Your task to perform on an android device: empty trash in the gmail app Image 0: 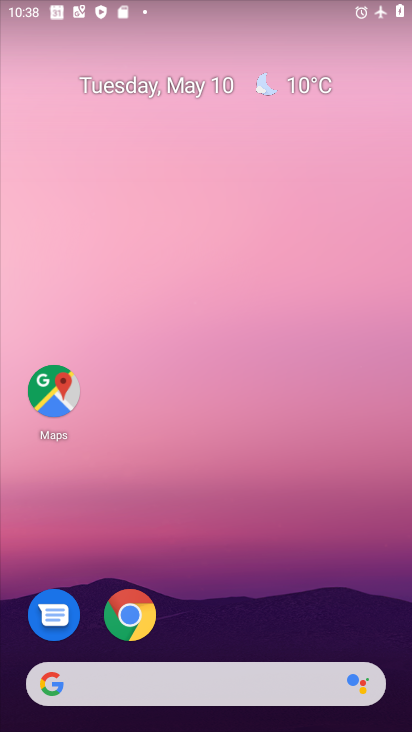
Step 0: drag from (213, 638) to (301, 91)
Your task to perform on an android device: empty trash in the gmail app Image 1: 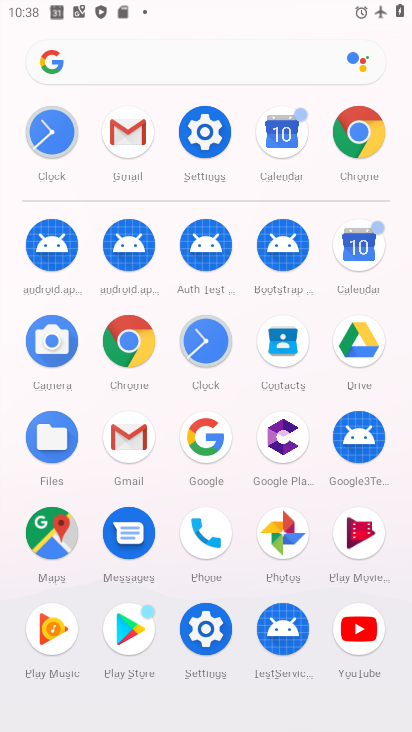
Step 1: click (125, 427)
Your task to perform on an android device: empty trash in the gmail app Image 2: 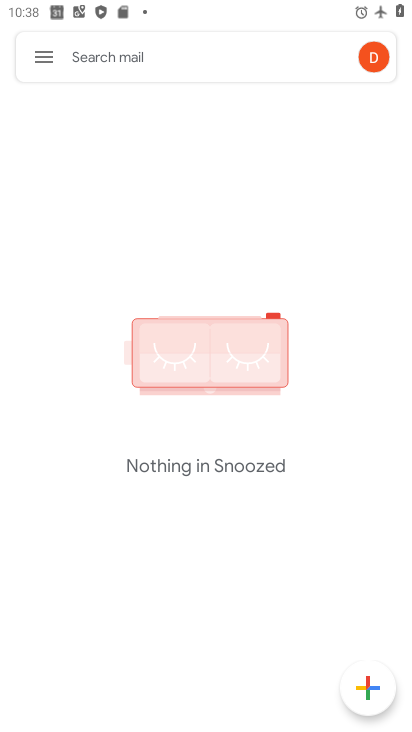
Step 2: click (38, 57)
Your task to perform on an android device: empty trash in the gmail app Image 3: 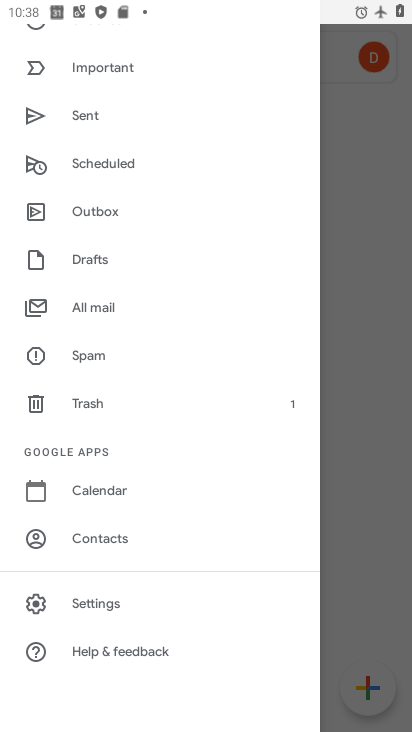
Step 3: click (109, 401)
Your task to perform on an android device: empty trash in the gmail app Image 4: 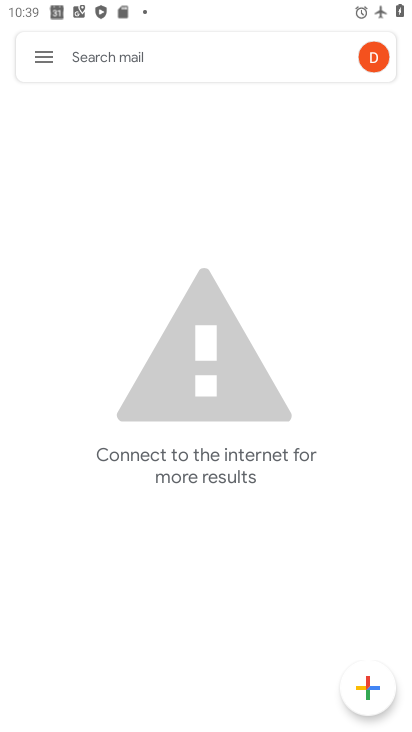
Step 4: click (43, 57)
Your task to perform on an android device: empty trash in the gmail app Image 5: 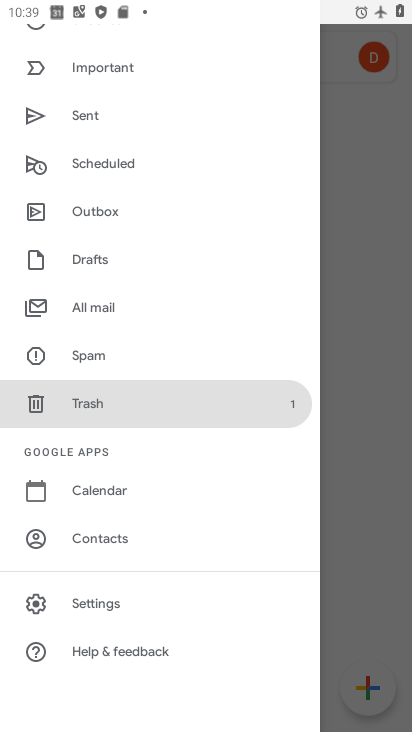
Step 5: click (106, 396)
Your task to perform on an android device: empty trash in the gmail app Image 6: 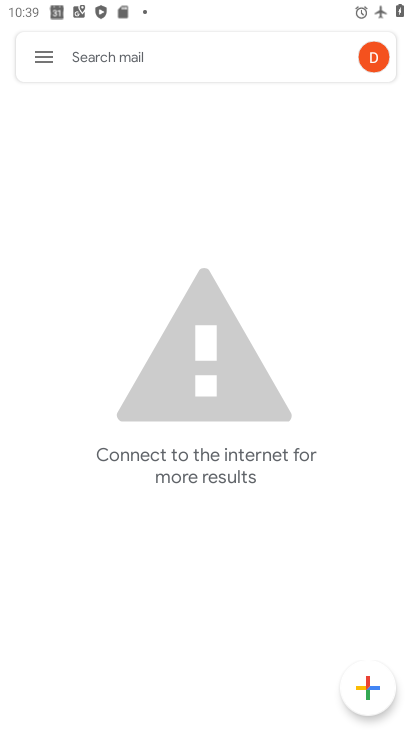
Step 6: task complete